Your task to perform on an android device: Go to Google maps Image 0: 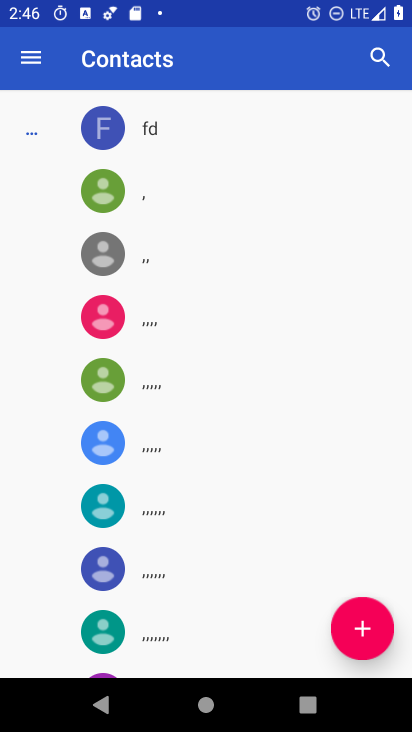
Step 0: press home button
Your task to perform on an android device: Go to Google maps Image 1: 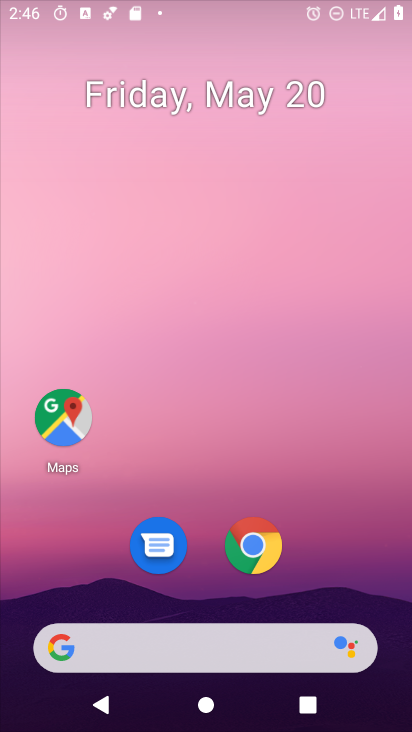
Step 1: drag from (201, 560) to (351, 49)
Your task to perform on an android device: Go to Google maps Image 2: 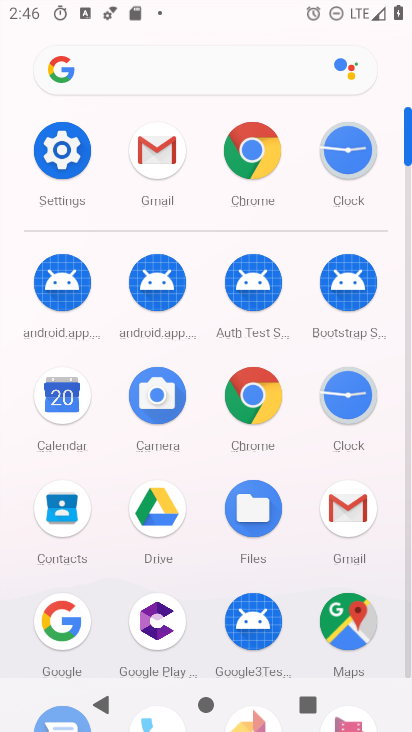
Step 2: click (339, 627)
Your task to perform on an android device: Go to Google maps Image 3: 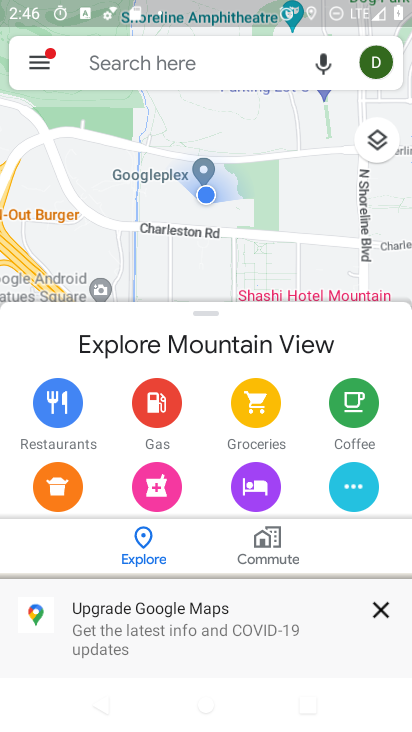
Step 3: task complete